Your task to perform on an android device: remove spam from my inbox in the gmail app Image 0: 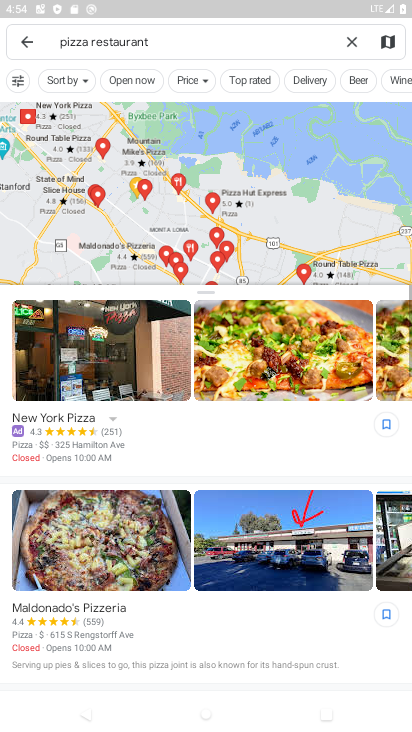
Step 0: press back button
Your task to perform on an android device: remove spam from my inbox in the gmail app Image 1: 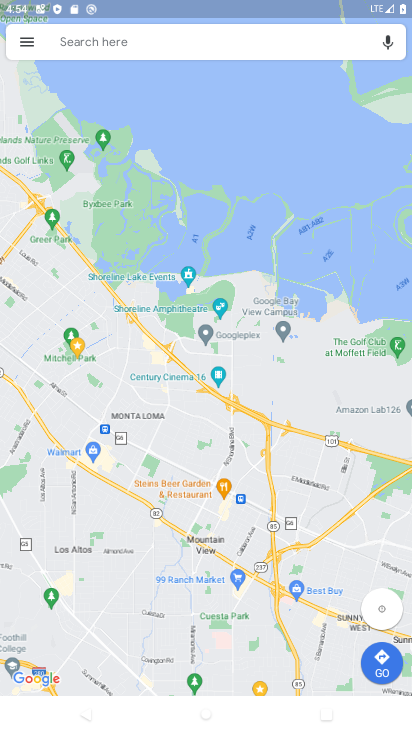
Step 1: press home button
Your task to perform on an android device: remove spam from my inbox in the gmail app Image 2: 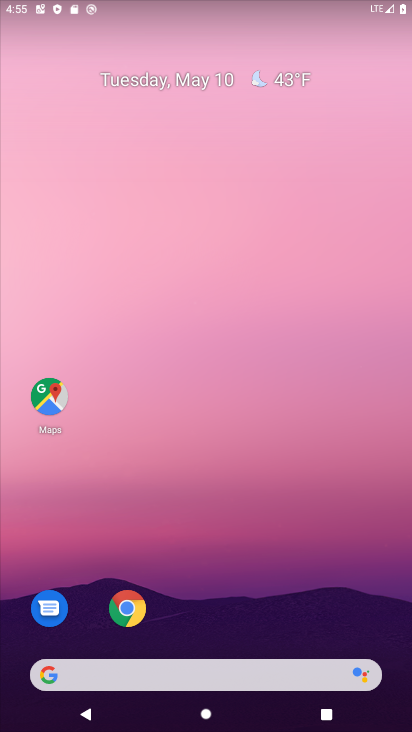
Step 2: drag from (179, 552) to (245, 0)
Your task to perform on an android device: remove spam from my inbox in the gmail app Image 3: 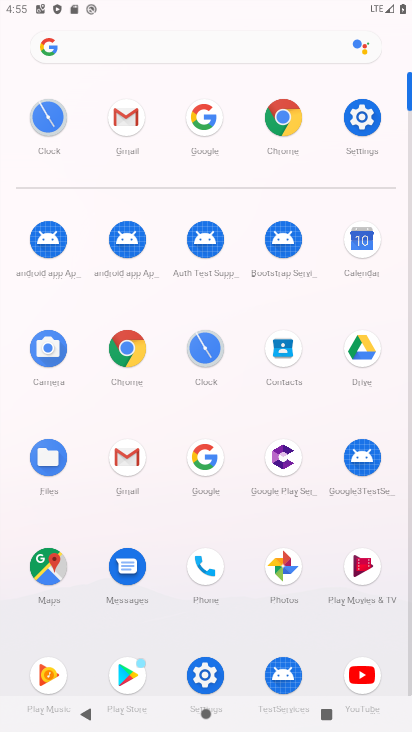
Step 3: click (129, 111)
Your task to perform on an android device: remove spam from my inbox in the gmail app Image 4: 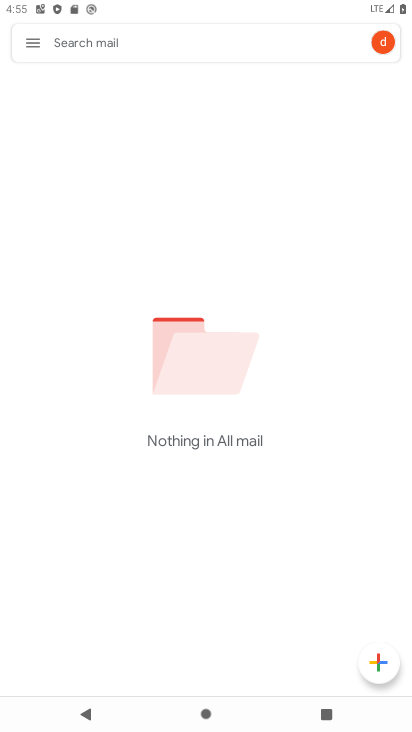
Step 4: click (22, 45)
Your task to perform on an android device: remove spam from my inbox in the gmail app Image 5: 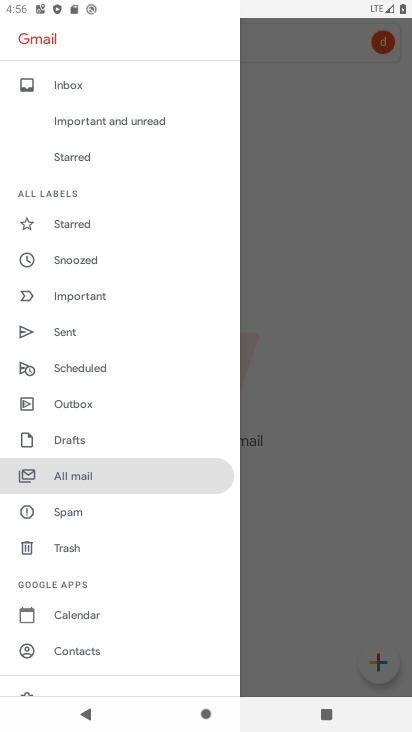
Step 5: click (75, 511)
Your task to perform on an android device: remove spam from my inbox in the gmail app Image 6: 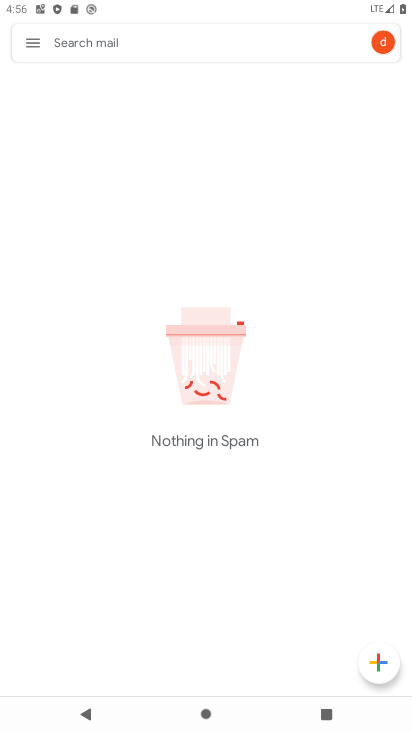
Step 6: task complete